Your task to perform on an android device: Open location settings Image 0: 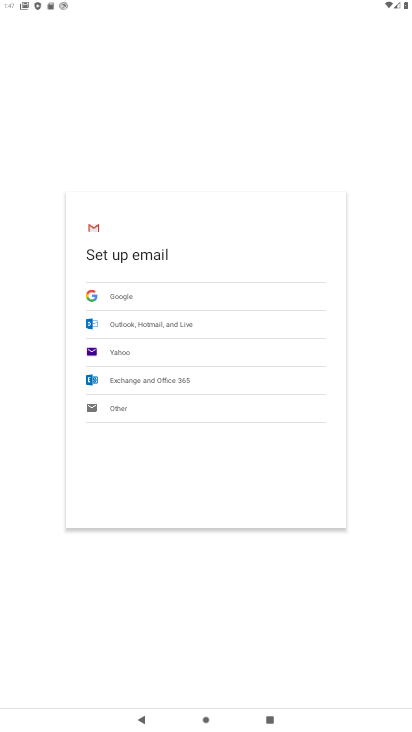
Step 0: press home button
Your task to perform on an android device: Open location settings Image 1: 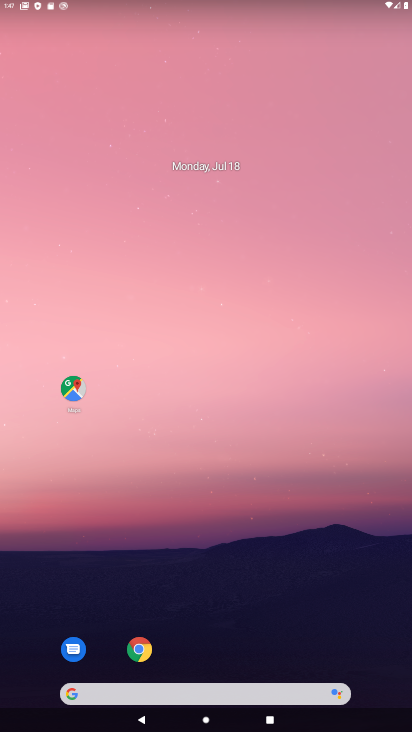
Step 1: drag from (229, 627) to (269, 43)
Your task to perform on an android device: Open location settings Image 2: 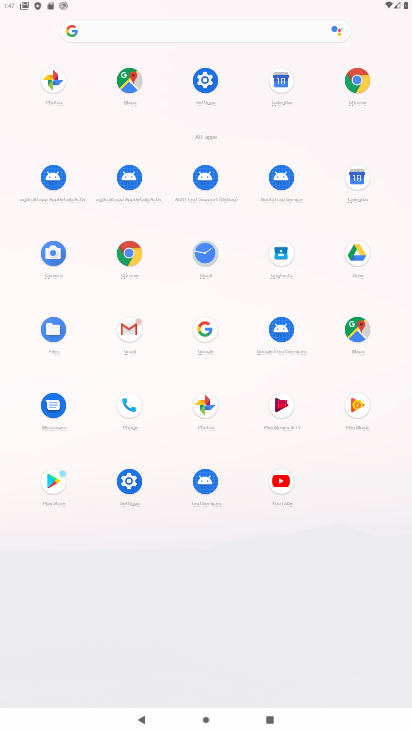
Step 2: click (193, 96)
Your task to perform on an android device: Open location settings Image 3: 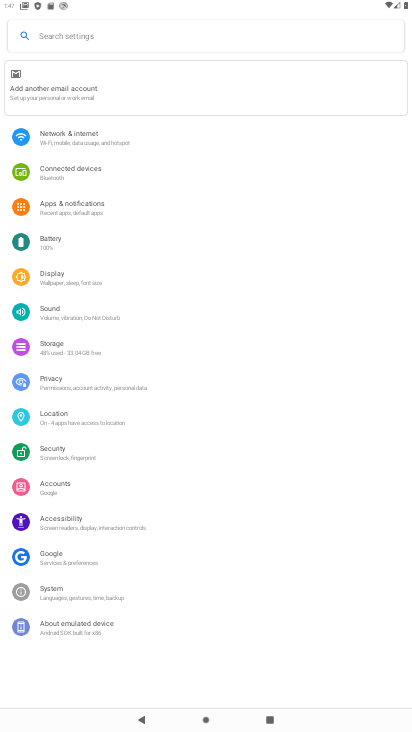
Step 3: click (63, 420)
Your task to perform on an android device: Open location settings Image 4: 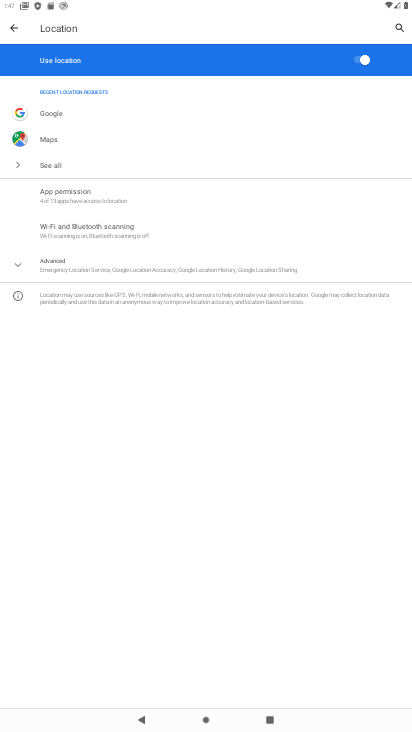
Step 4: task complete